Your task to perform on an android device: find photos in the google photos app Image 0: 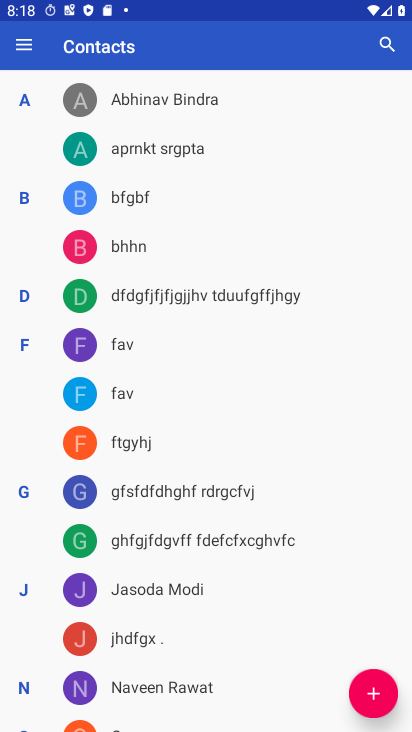
Step 0: press home button
Your task to perform on an android device: find photos in the google photos app Image 1: 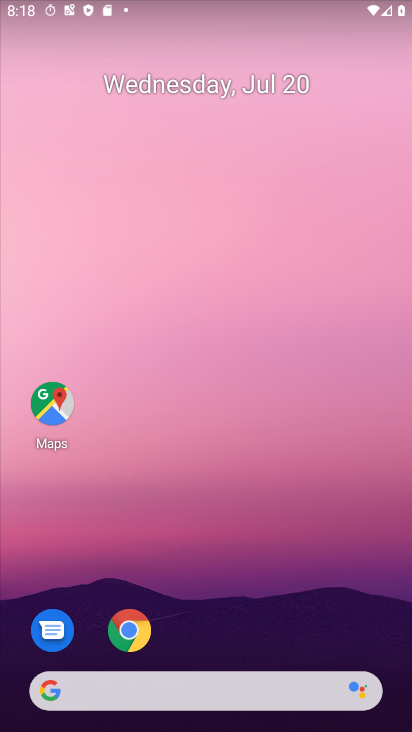
Step 1: drag from (164, 639) to (270, 142)
Your task to perform on an android device: find photos in the google photos app Image 2: 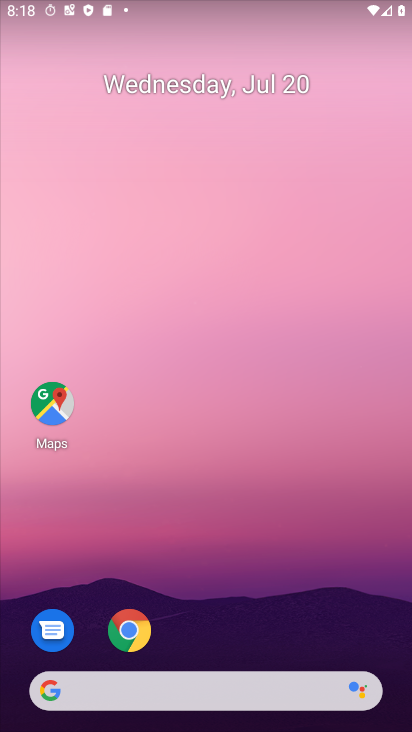
Step 2: drag from (246, 635) to (246, 197)
Your task to perform on an android device: find photos in the google photos app Image 3: 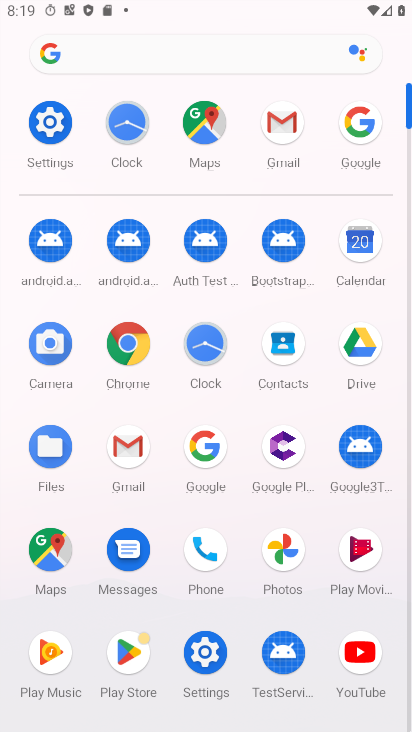
Step 3: click (276, 574)
Your task to perform on an android device: find photos in the google photos app Image 4: 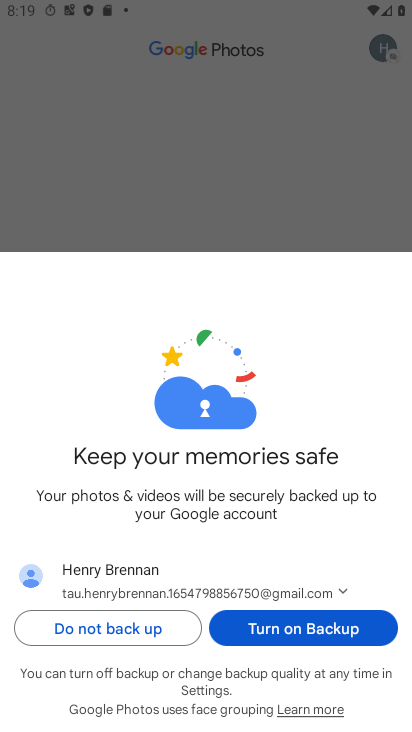
Step 4: click (285, 630)
Your task to perform on an android device: find photos in the google photos app Image 5: 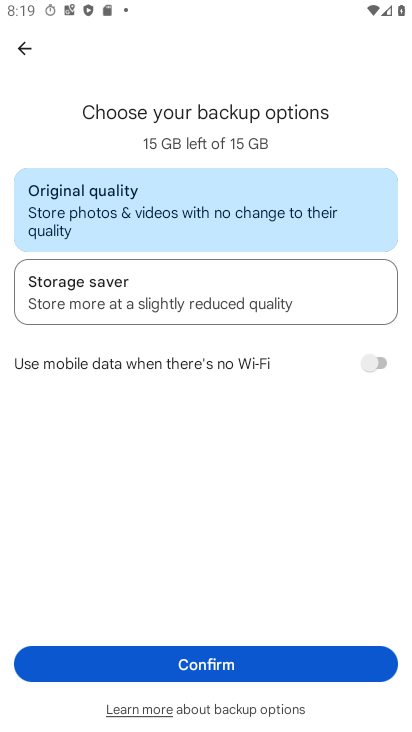
Step 5: click (278, 657)
Your task to perform on an android device: find photos in the google photos app Image 6: 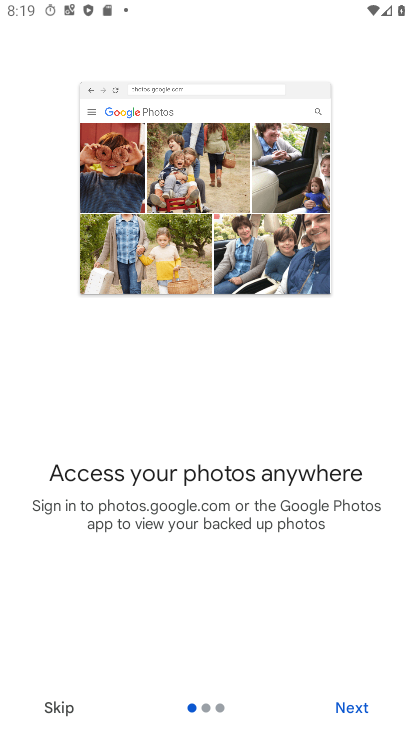
Step 6: click (352, 710)
Your task to perform on an android device: find photos in the google photos app Image 7: 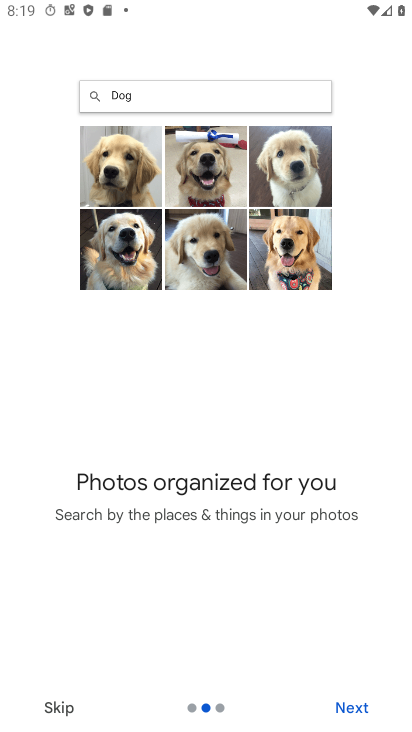
Step 7: click (353, 709)
Your task to perform on an android device: find photos in the google photos app Image 8: 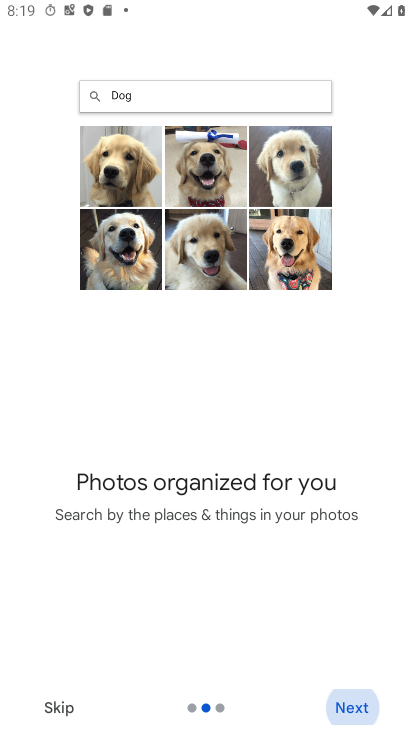
Step 8: click (354, 706)
Your task to perform on an android device: find photos in the google photos app Image 9: 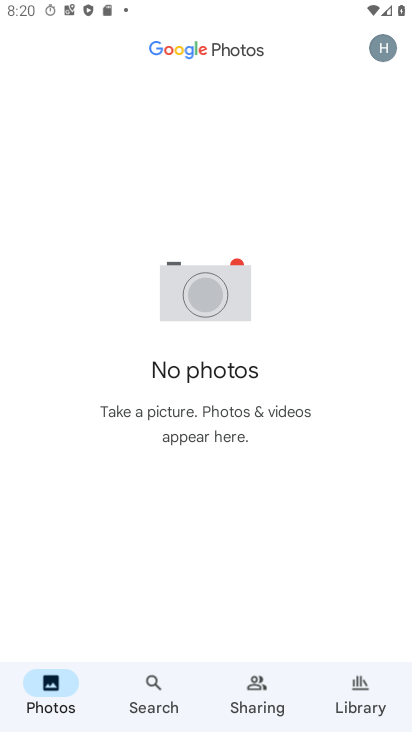
Step 9: click (390, 53)
Your task to perform on an android device: find photos in the google photos app Image 10: 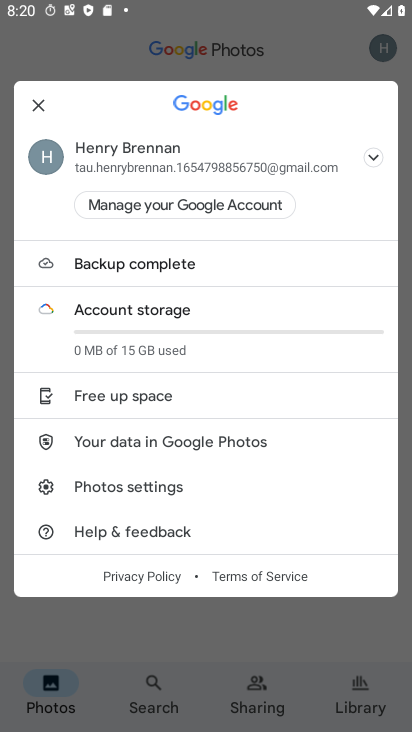
Step 10: task complete